Your task to perform on an android device: Search for Italian restaurants on Maps Image 0: 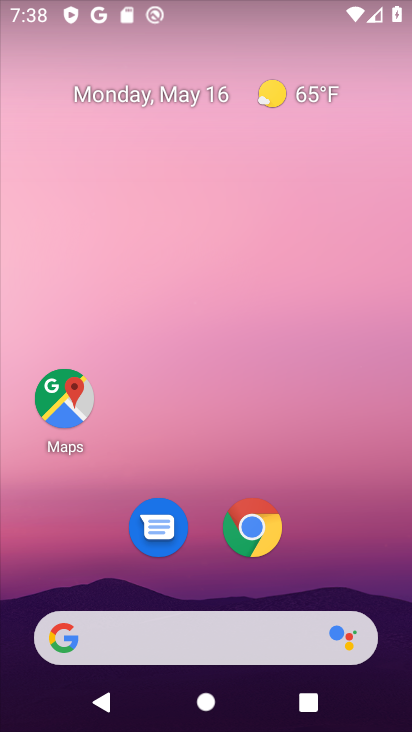
Step 0: drag from (313, 517) to (351, 147)
Your task to perform on an android device: Search for Italian restaurants on Maps Image 1: 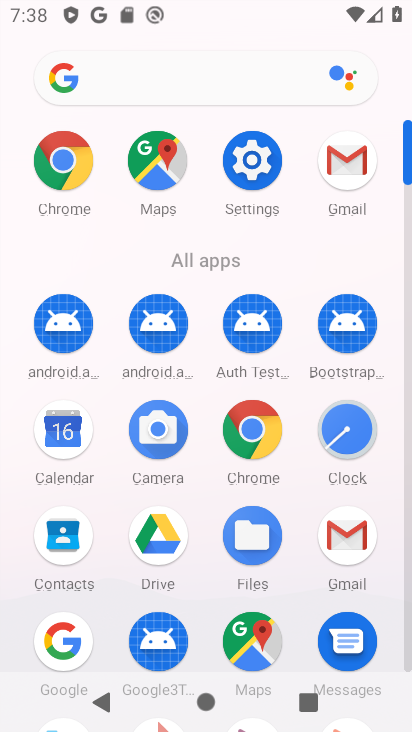
Step 1: click (252, 627)
Your task to perform on an android device: Search for Italian restaurants on Maps Image 2: 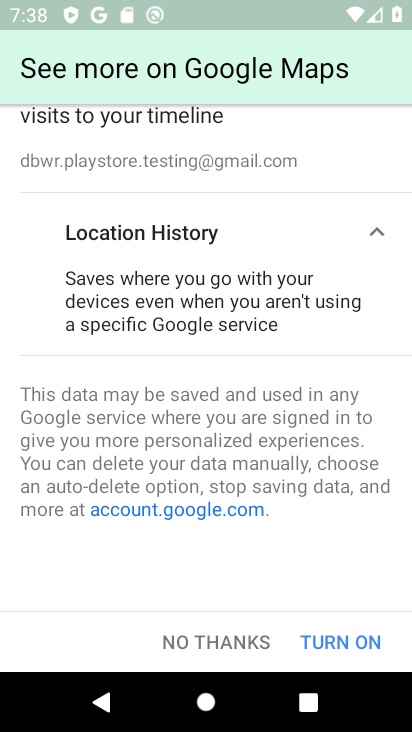
Step 2: click (133, 53)
Your task to perform on an android device: Search for Italian restaurants on Maps Image 3: 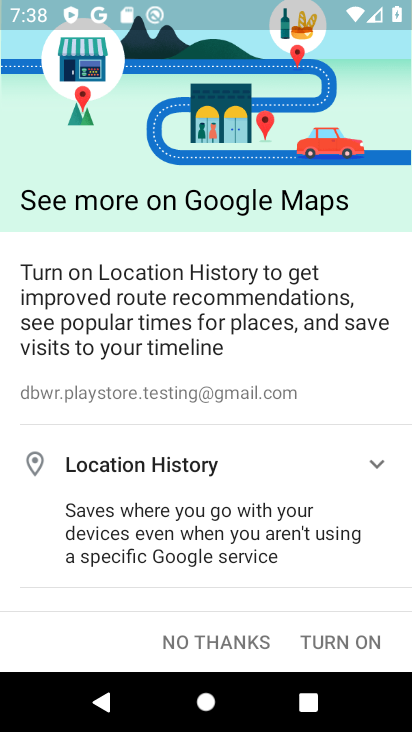
Step 3: click (191, 644)
Your task to perform on an android device: Search for Italian restaurants on Maps Image 4: 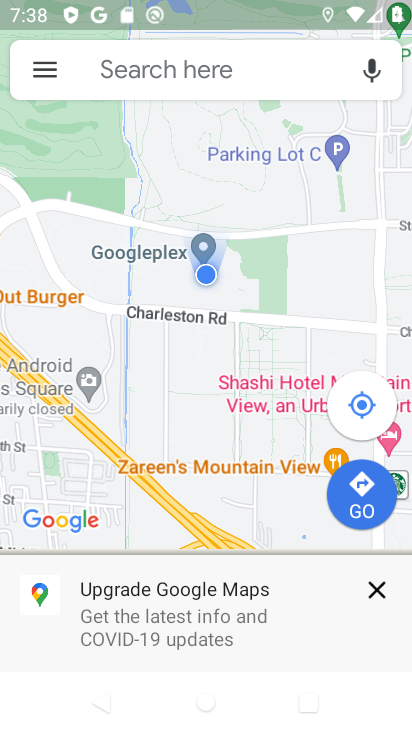
Step 4: click (207, 60)
Your task to perform on an android device: Search for Italian restaurants on Maps Image 5: 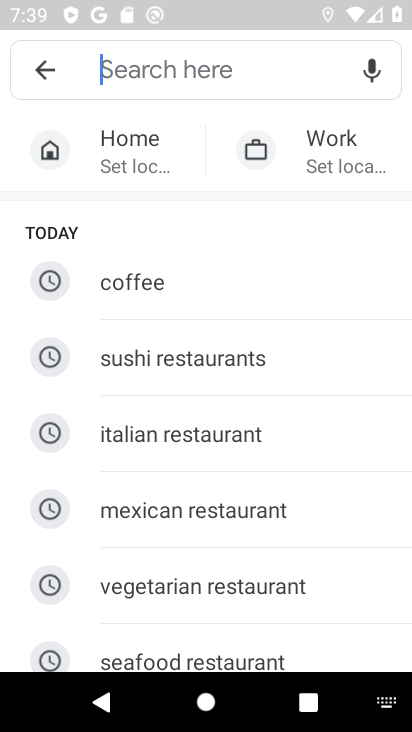
Step 5: click (154, 430)
Your task to perform on an android device: Search for Italian restaurants on Maps Image 6: 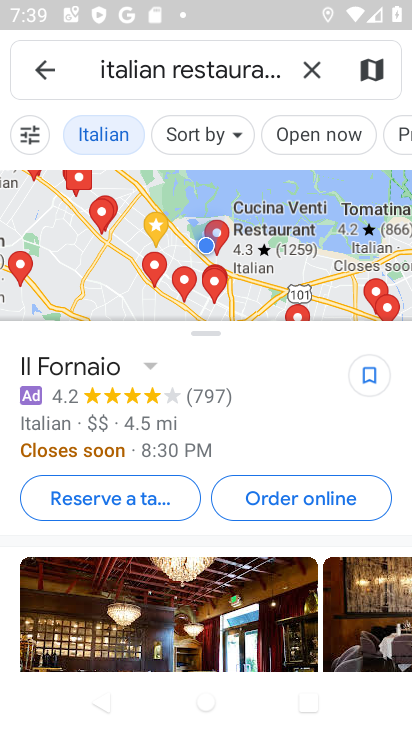
Step 6: task complete